Your task to perform on an android device: Go to wifi settings Image 0: 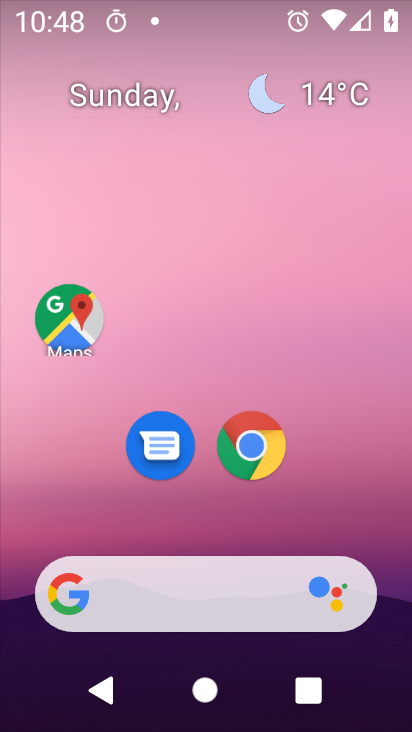
Step 0: click (392, 87)
Your task to perform on an android device: Go to wifi settings Image 1: 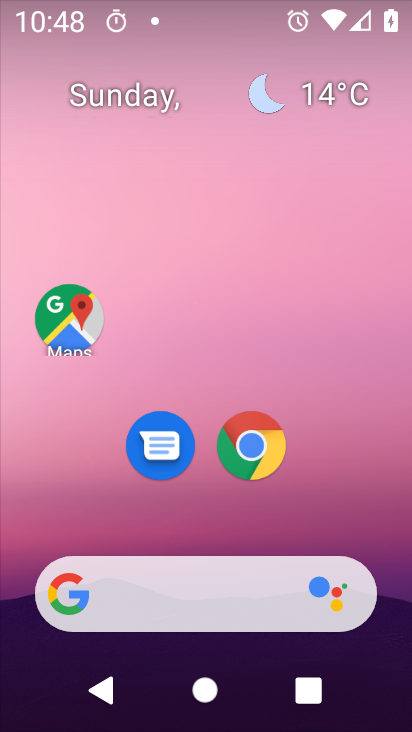
Step 1: drag from (237, 411) to (299, 25)
Your task to perform on an android device: Go to wifi settings Image 2: 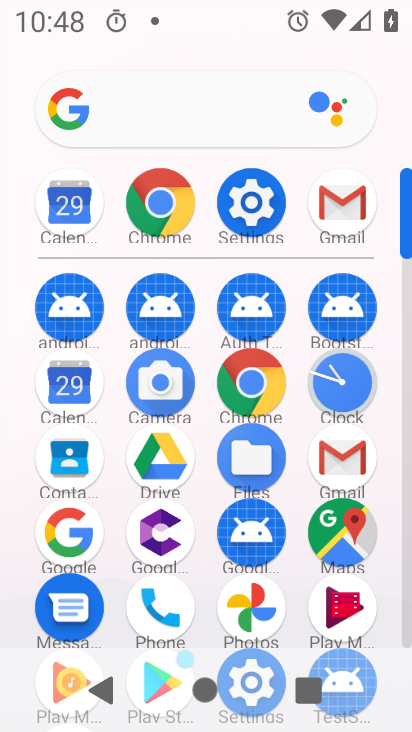
Step 2: click (248, 216)
Your task to perform on an android device: Go to wifi settings Image 3: 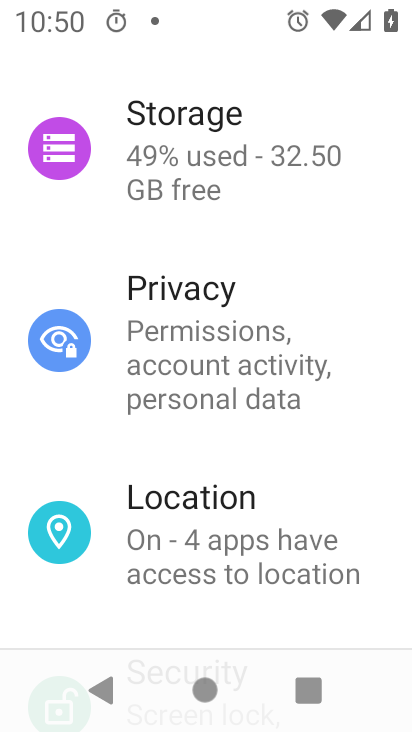
Step 3: drag from (289, 195) to (328, 729)
Your task to perform on an android device: Go to wifi settings Image 4: 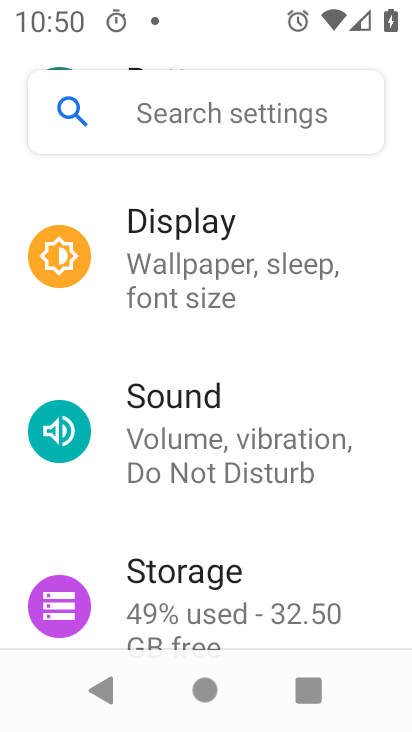
Step 4: drag from (255, 272) to (289, 724)
Your task to perform on an android device: Go to wifi settings Image 5: 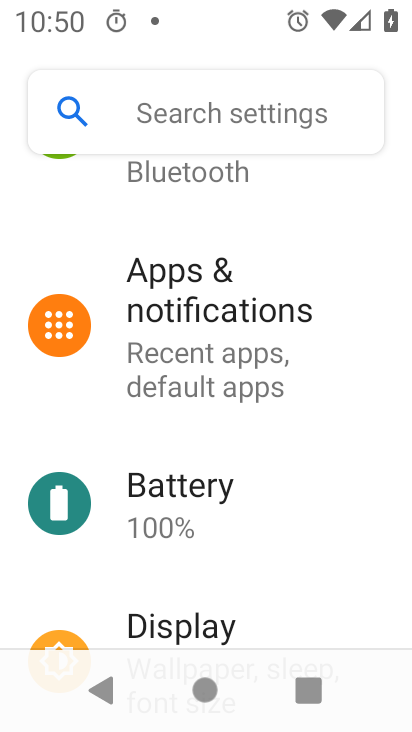
Step 5: drag from (224, 248) to (386, 723)
Your task to perform on an android device: Go to wifi settings Image 6: 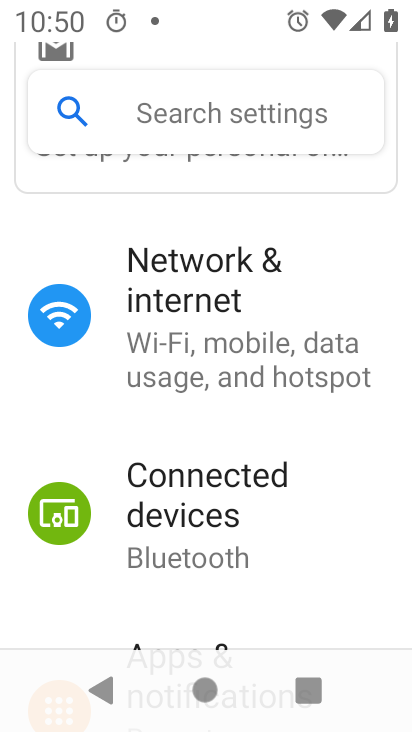
Step 6: click (195, 246)
Your task to perform on an android device: Go to wifi settings Image 7: 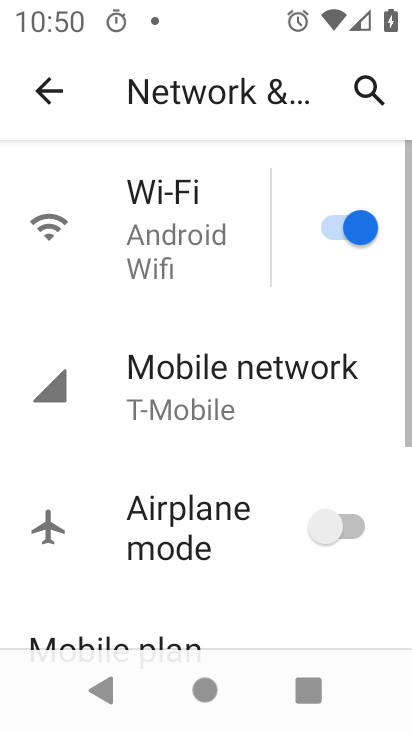
Step 7: click (189, 253)
Your task to perform on an android device: Go to wifi settings Image 8: 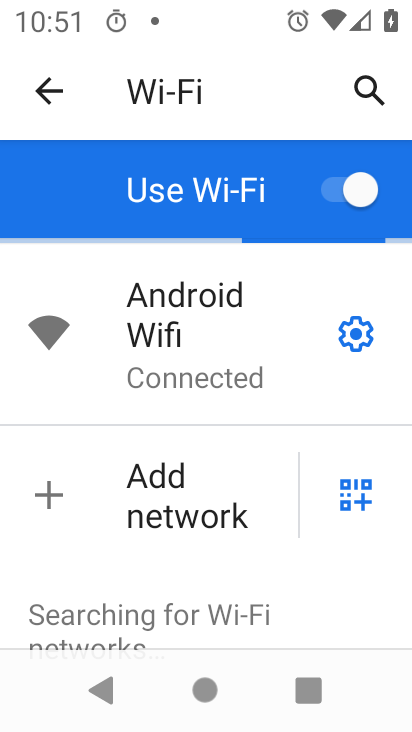
Step 8: click (309, 214)
Your task to perform on an android device: Go to wifi settings Image 9: 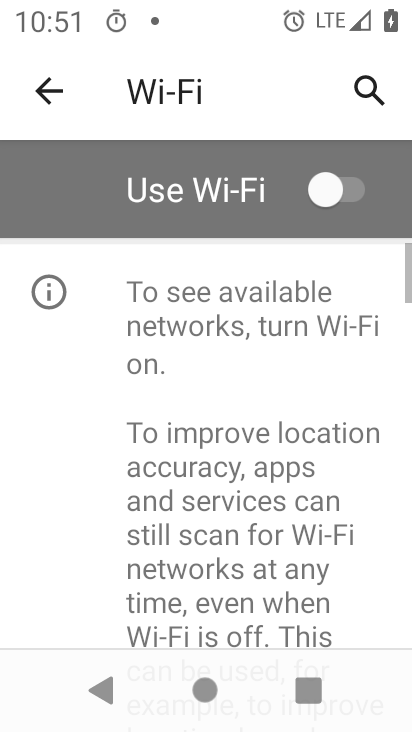
Step 9: task complete